Your task to perform on an android device: Go to notification settings Image 0: 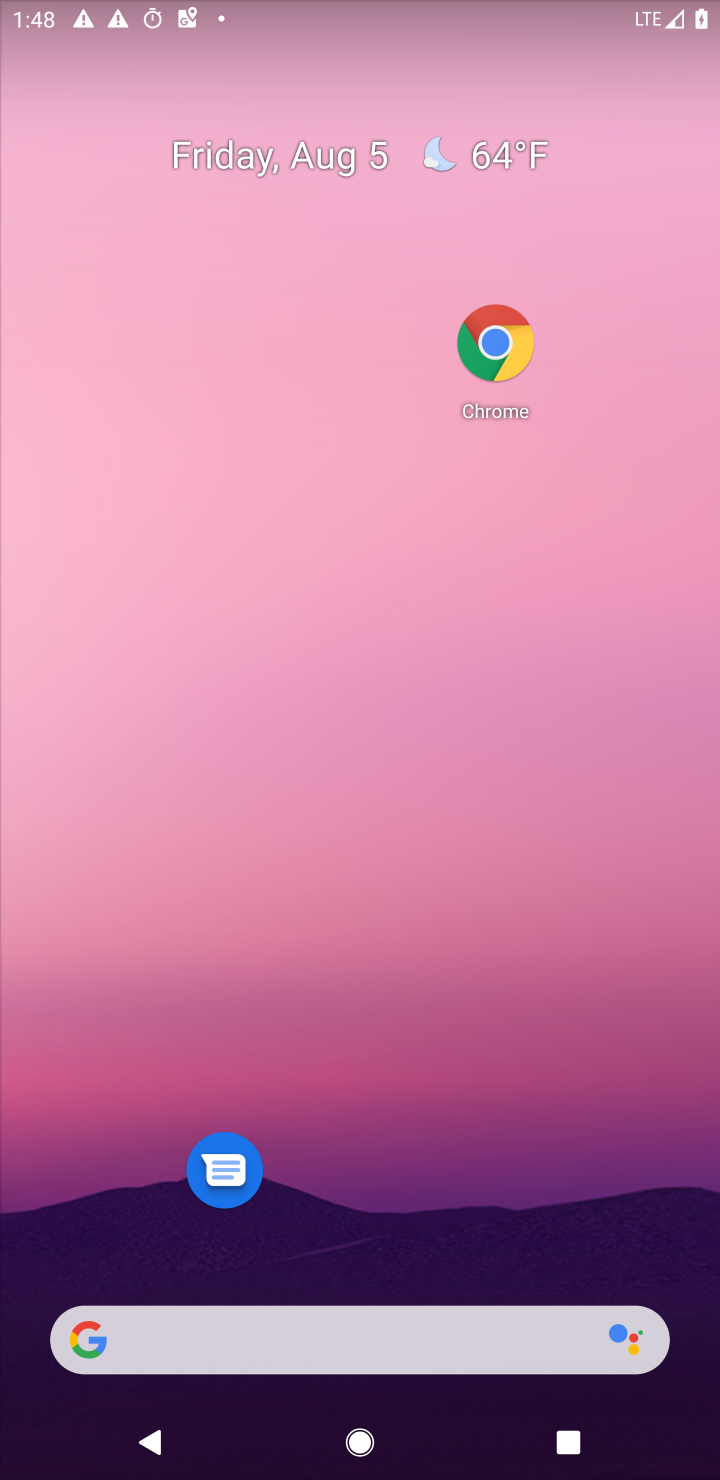
Step 0: drag from (328, 957) to (331, 289)
Your task to perform on an android device: Go to notification settings Image 1: 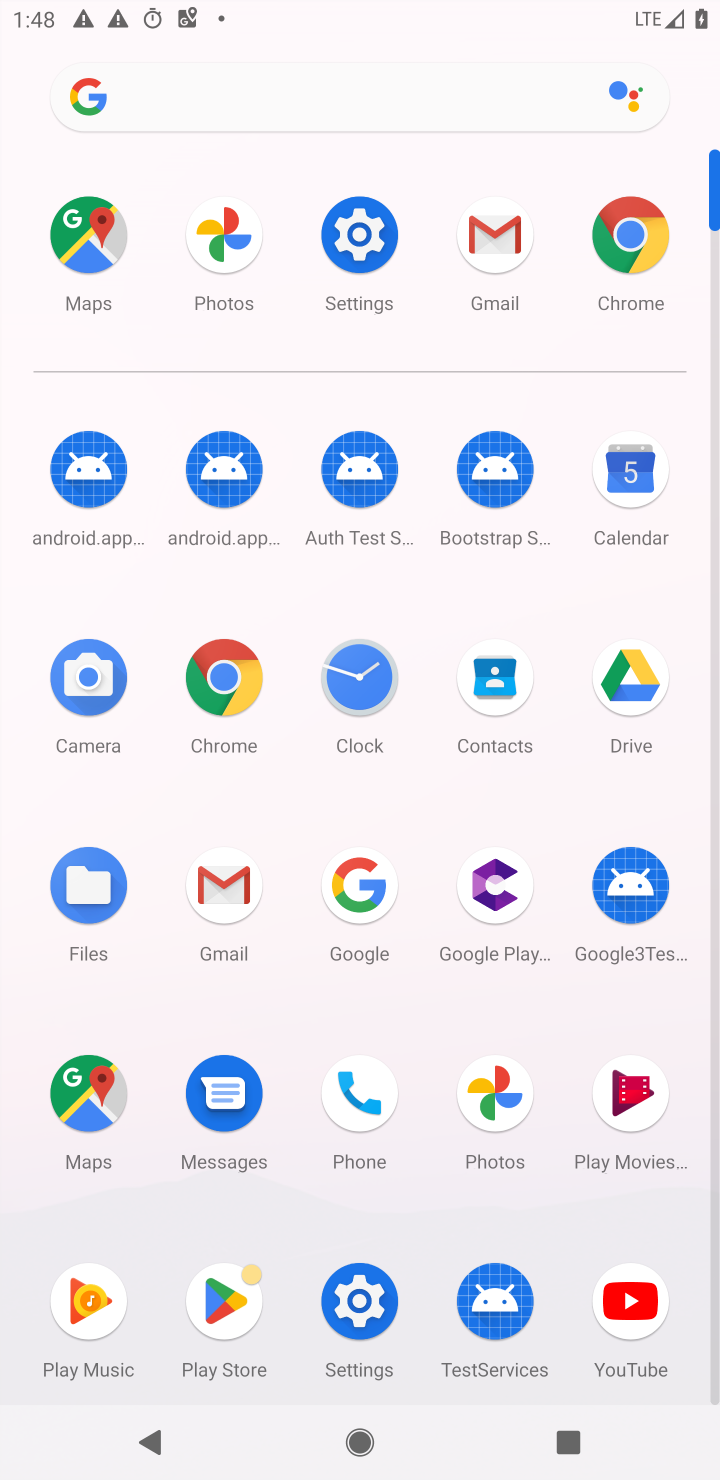
Step 1: click (351, 1319)
Your task to perform on an android device: Go to notification settings Image 2: 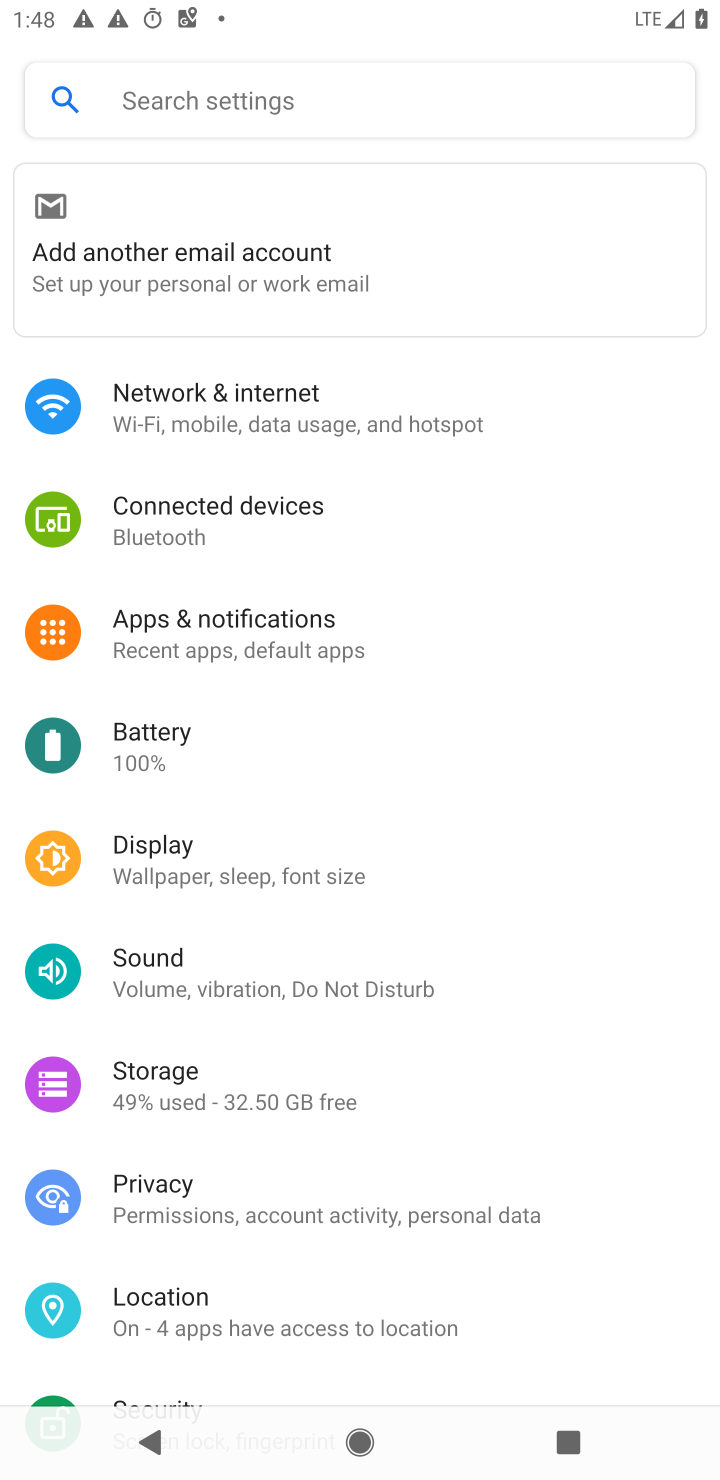
Step 2: click (241, 648)
Your task to perform on an android device: Go to notification settings Image 3: 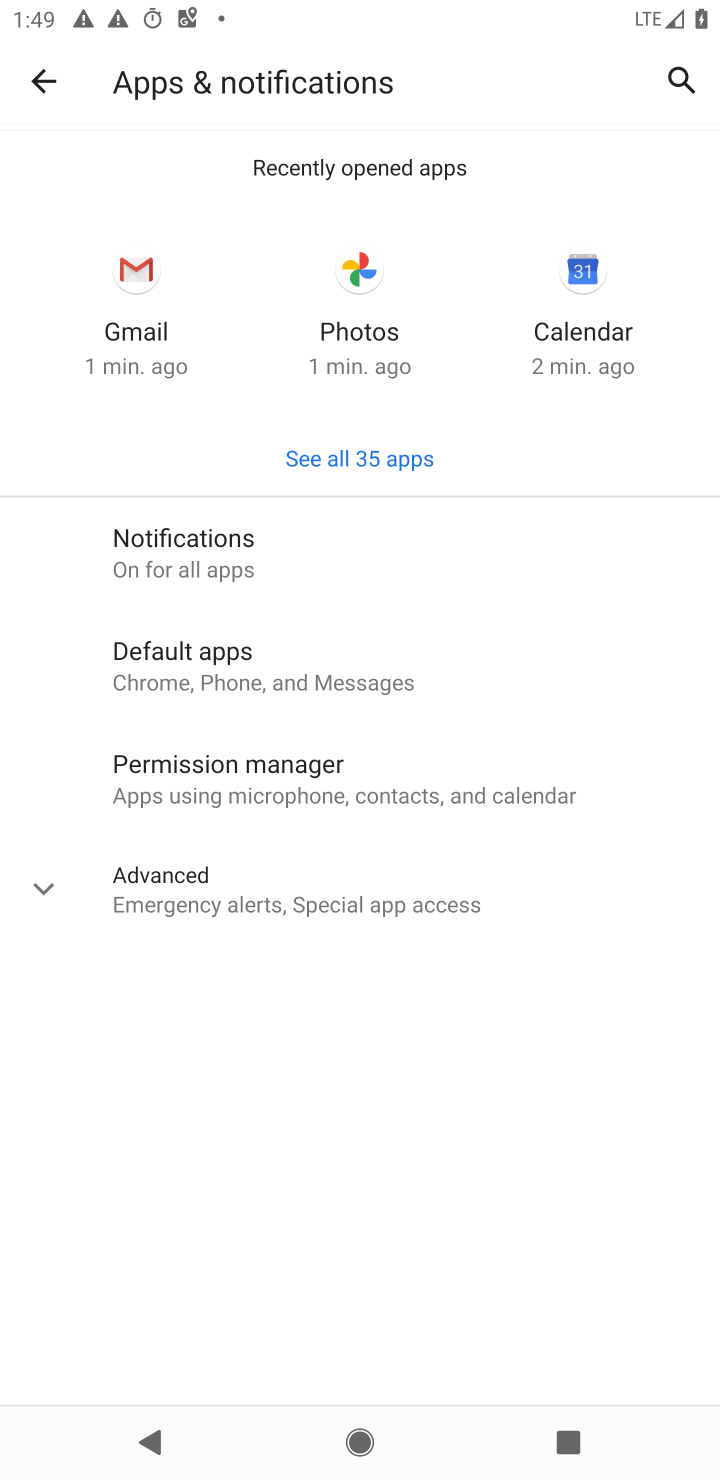
Step 3: click (277, 887)
Your task to perform on an android device: Go to notification settings Image 4: 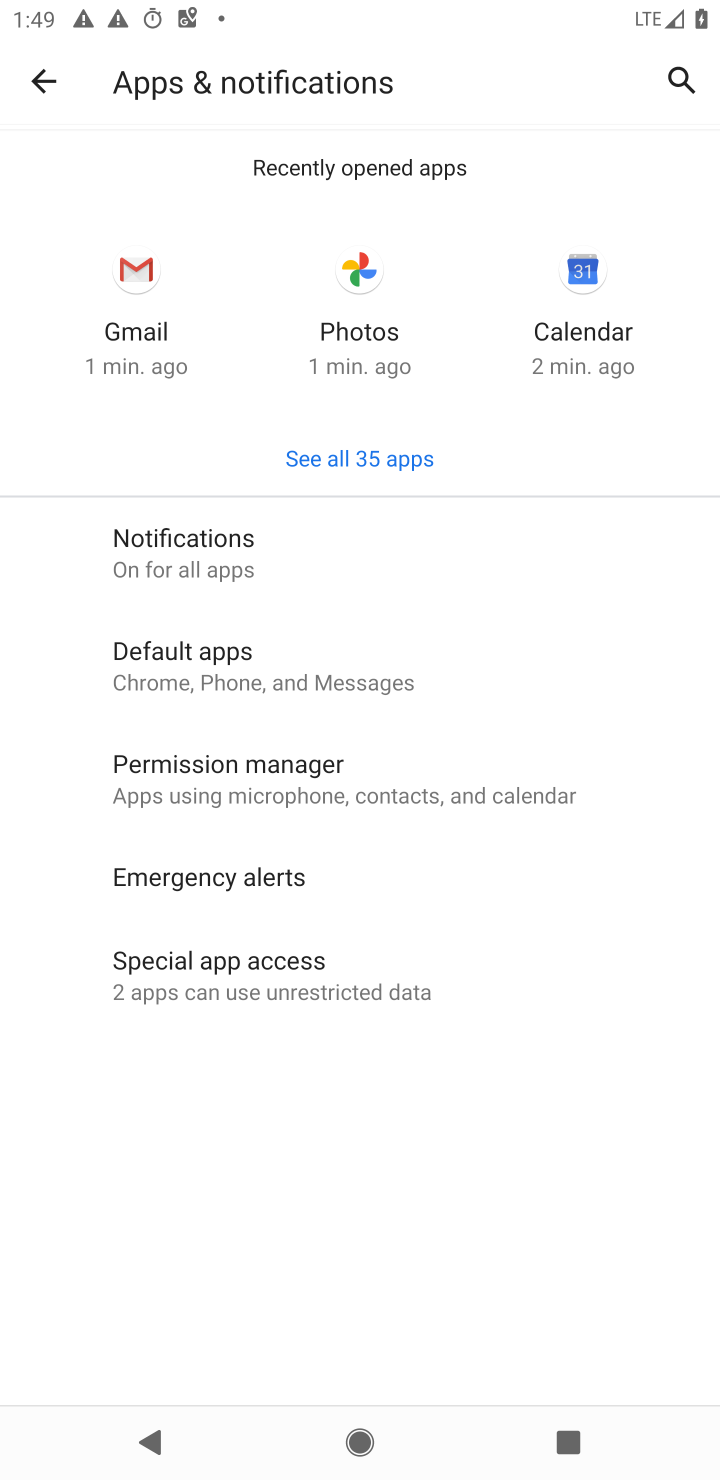
Step 4: task complete